Your task to perform on an android device: turn on notifications settings in the gmail app Image 0: 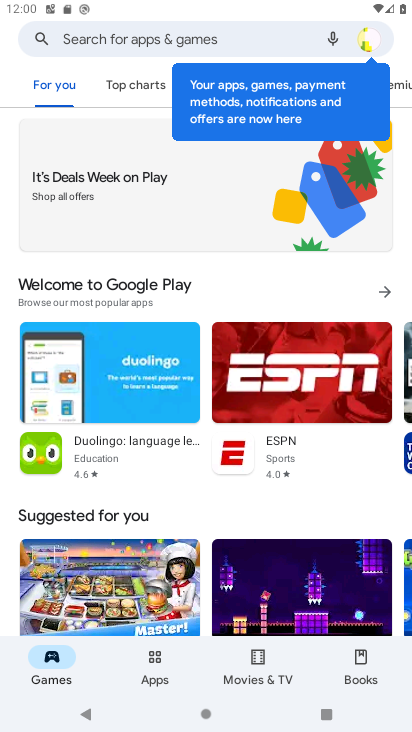
Step 0: press home button
Your task to perform on an android device: turn on notifications settings in the gmail app Image 1: 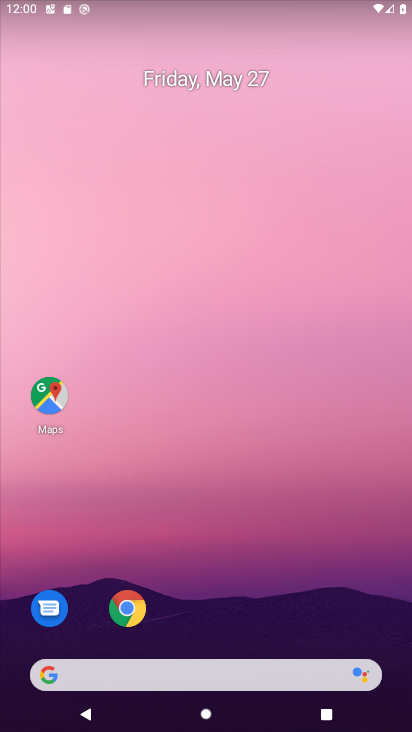
Step 1: drag from (394, 710) to (385, 356)
Your task to perform on an android device: turn on notifications settings in the gmail app Image 2: 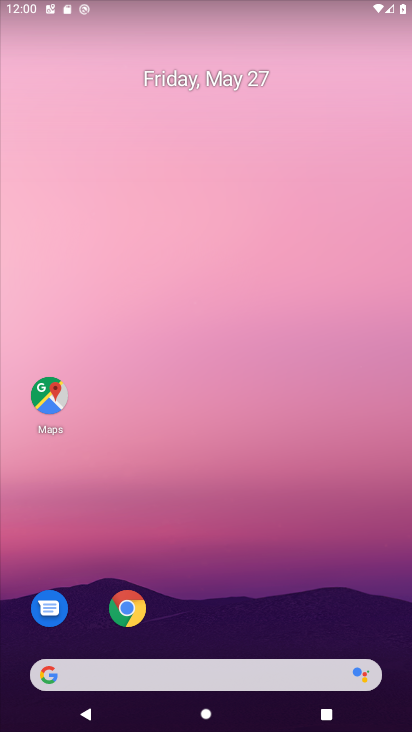
Step 2: drag from (392, 684) to (335, 300)
Your task to perform on an android device: turn on notifications settings in the gmail app Image 3: 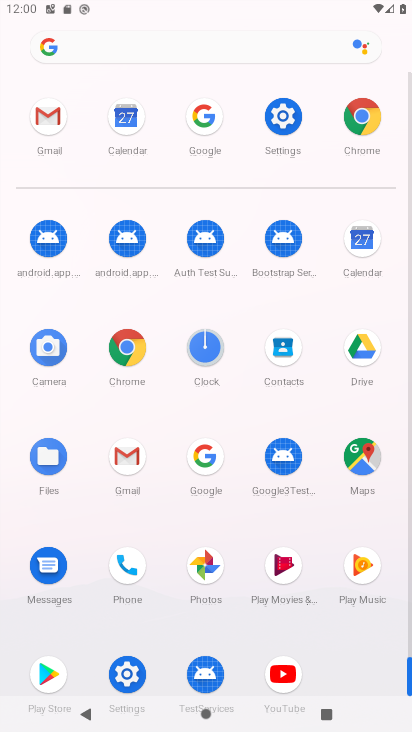
Step 3: click (125, 466)
Your task to perform on an android device: turn on notifications settings in the gmail app Image 4: 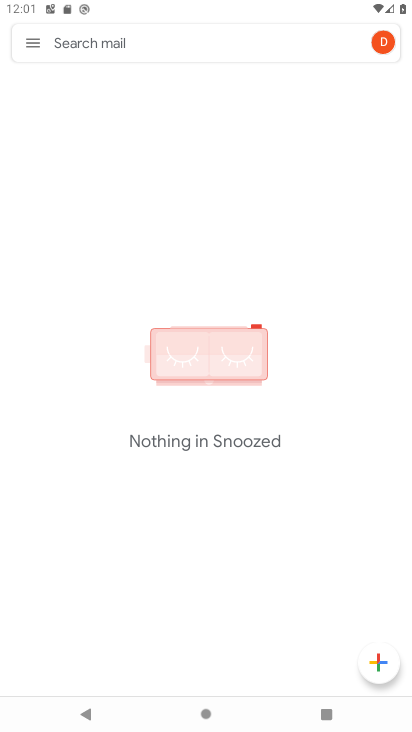
Step 4: click (36, 44)
Your task to perform on an android device: turn on notifications settings in the gmail app Image 5: 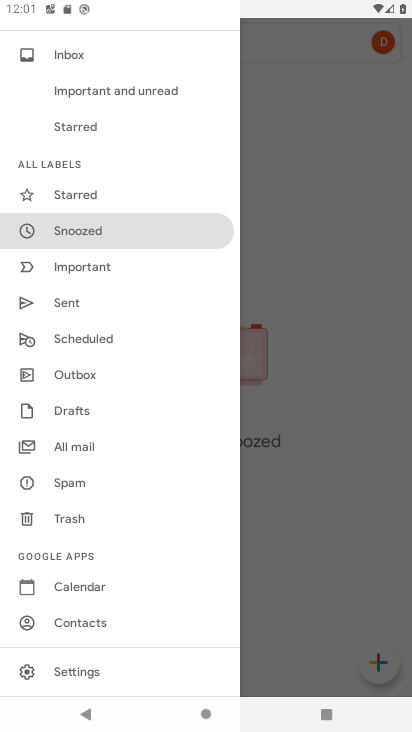
Step 5: drag from (143, 586) to (154, 338)
Your task to perform on an android device: turn on notifications settings in the gmail app Image 6: 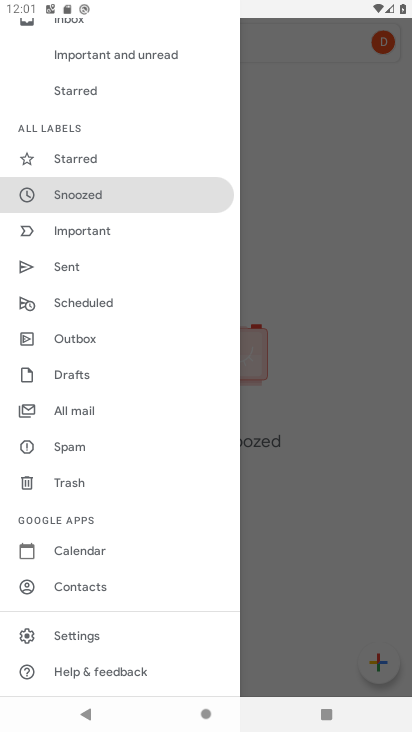
Step 6: click (65, 633)
Your task to perform on an android device: turn on notifications settings in the gmail app Image 7: 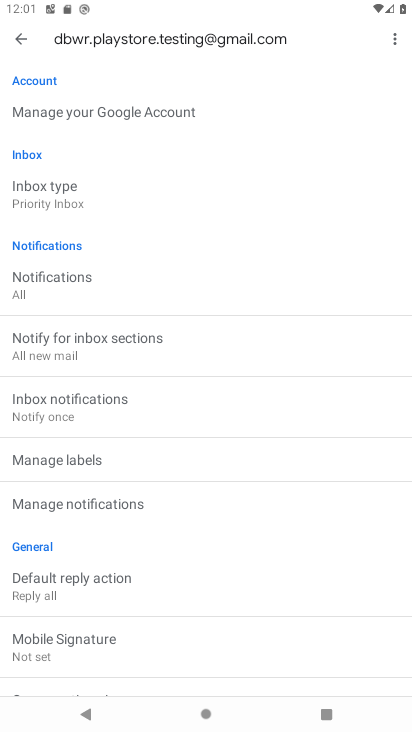
Step 7: click (19, 41)
Your task to perform on an android device: turn on notifications settings in the gmail app Image 8: 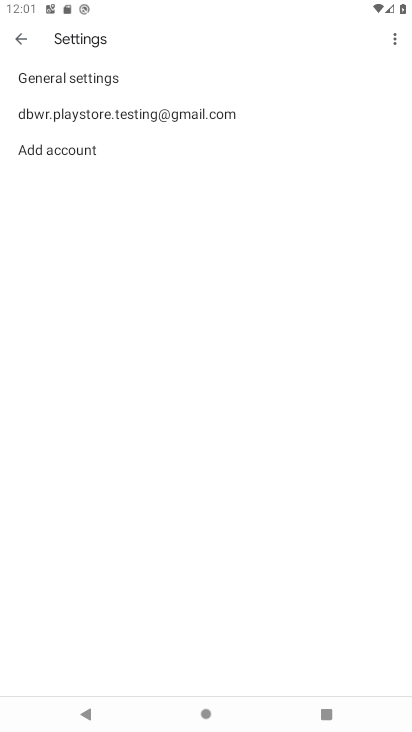
Step 8: click (38, 70)
Your task to perform on an android device: turn on notifications settings in the gmail app Image 9: 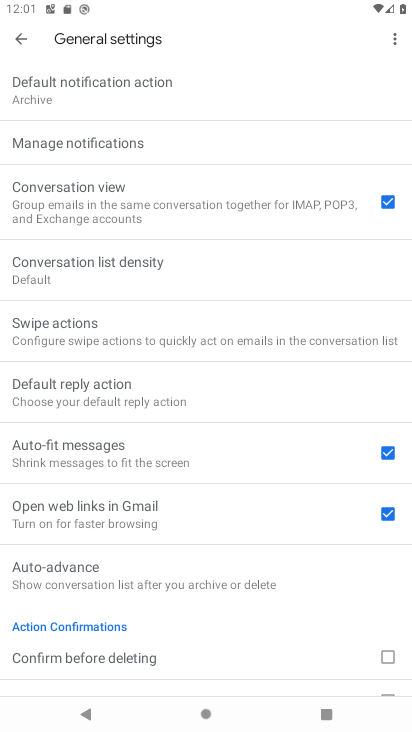
Step 9: click (65, 143)
Your task to perform on an android device: turn on notifications settings in the gmail app Image 10: 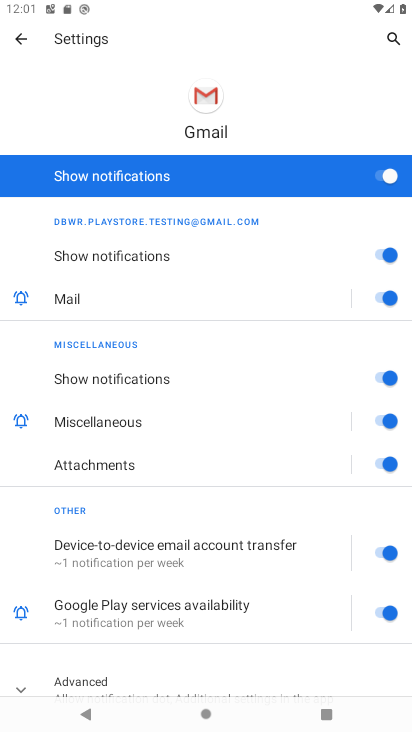
Step 10: task complete